Your task to perform on an android device: Is it going to rain this weekend? Image 0: 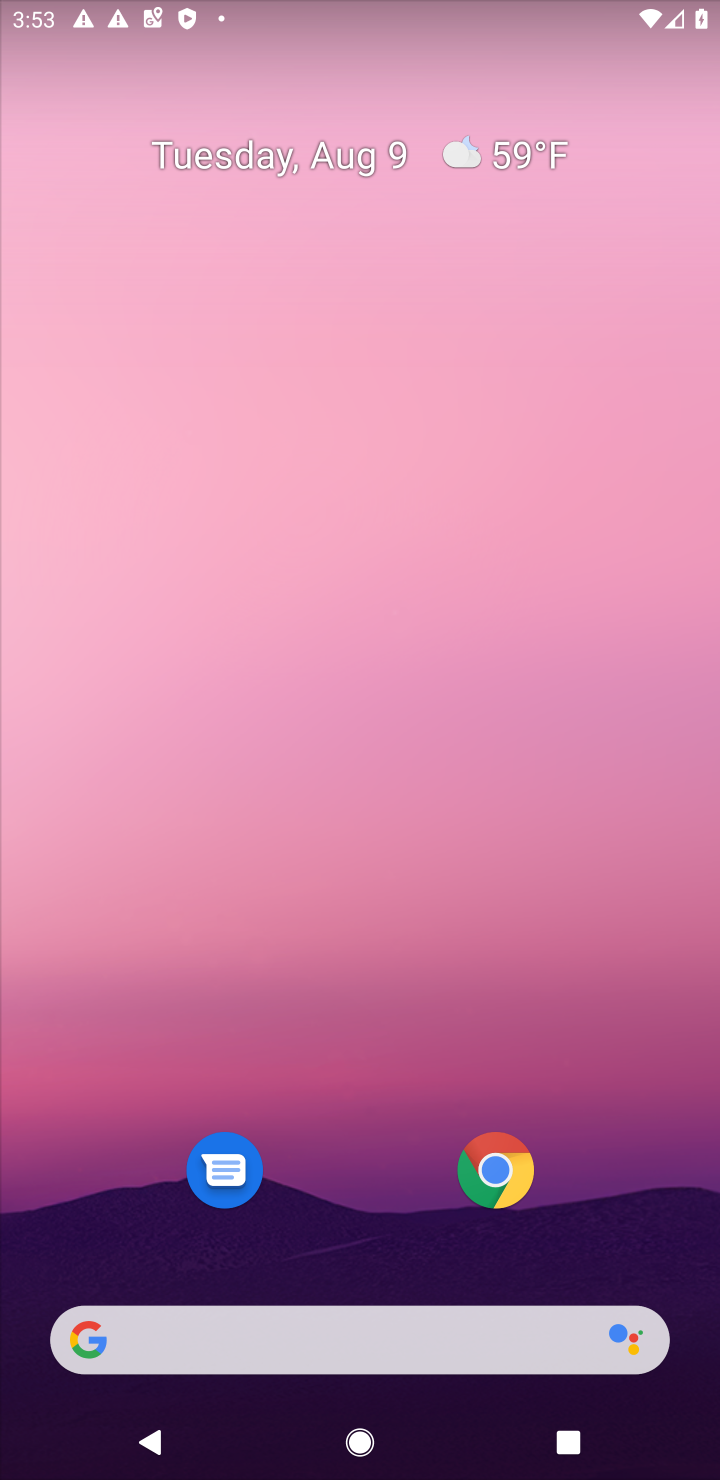
Step 0: press home button
Your task to perform on an android device: Is it going to rain this weekend? Image 1: 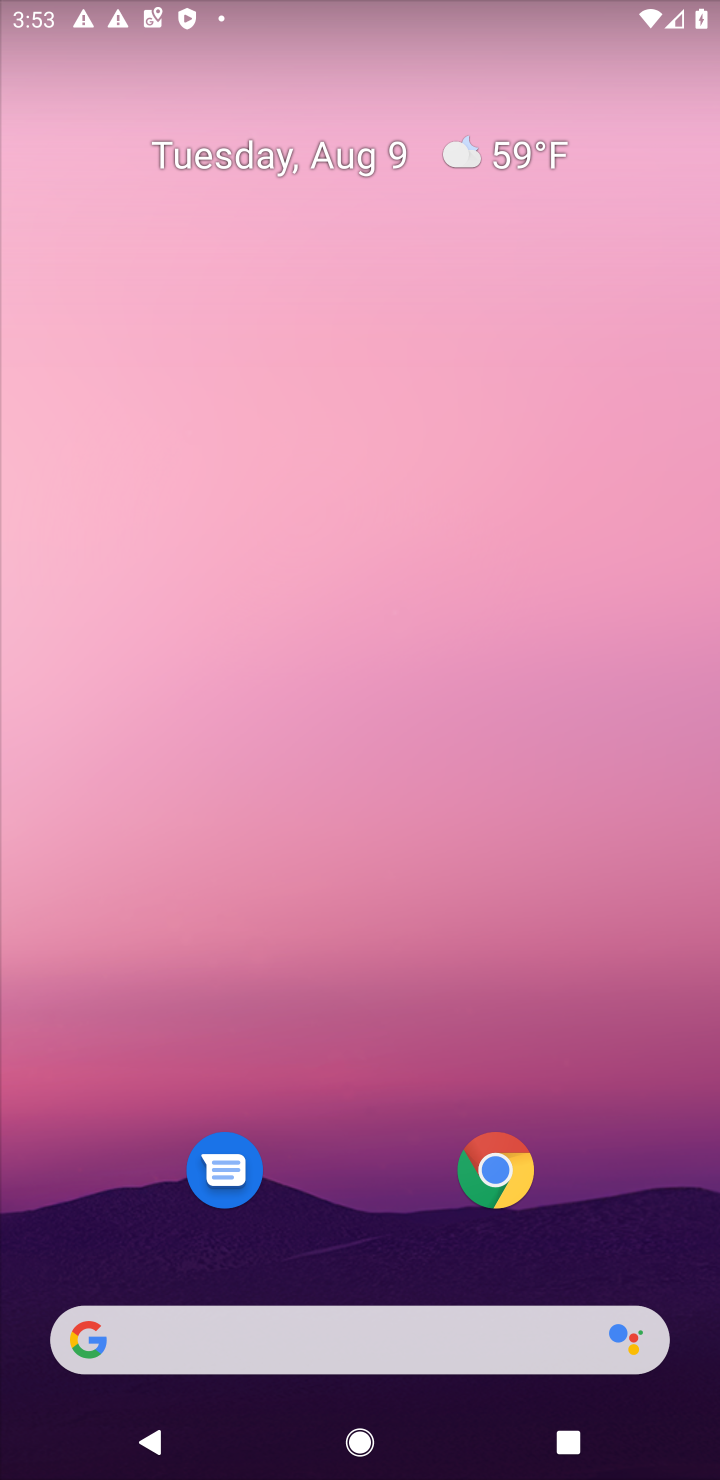
Step 1: click (366, 164)
Your task to perform on an android device: Is it going to rain this weekend? Image 2: 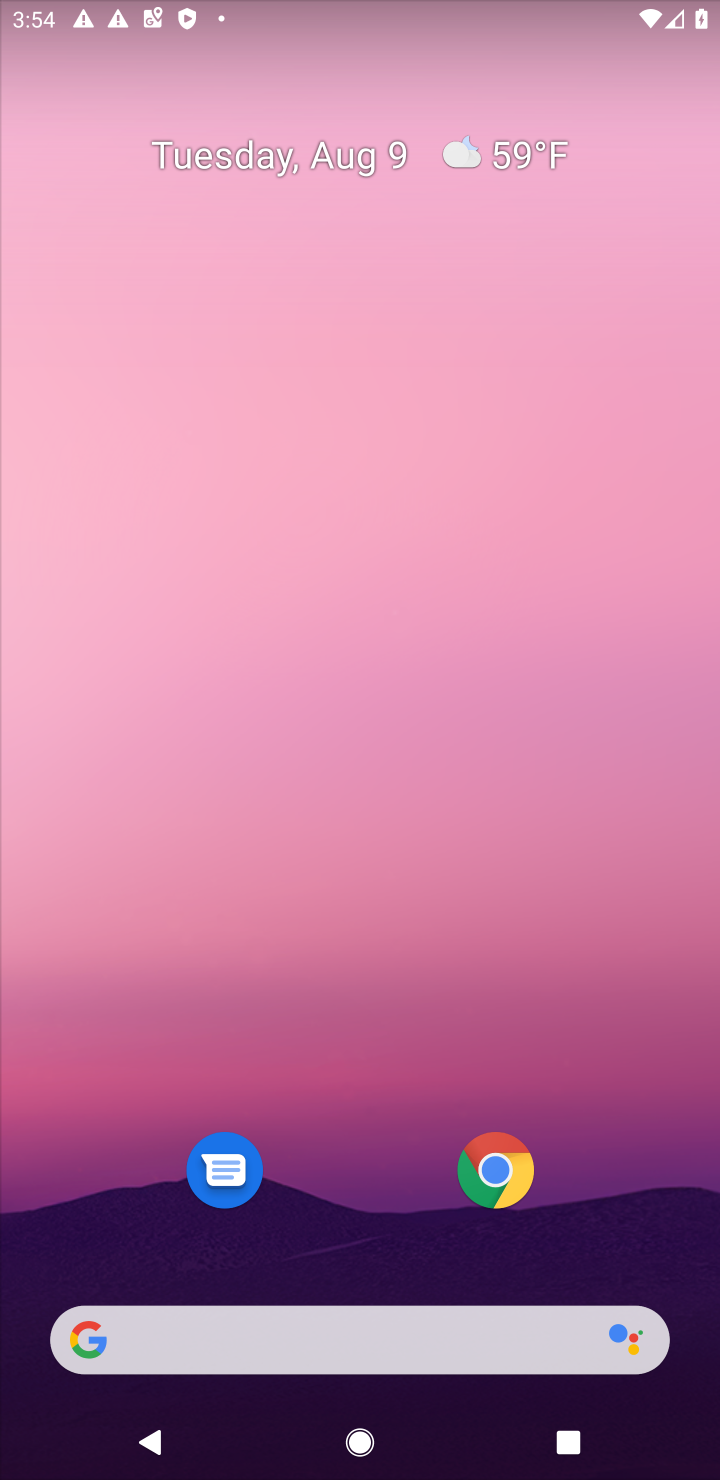
Step 2: click (70, 1342)
Your task to perform on an android device: Is it going to rain this weekend? Image 3: 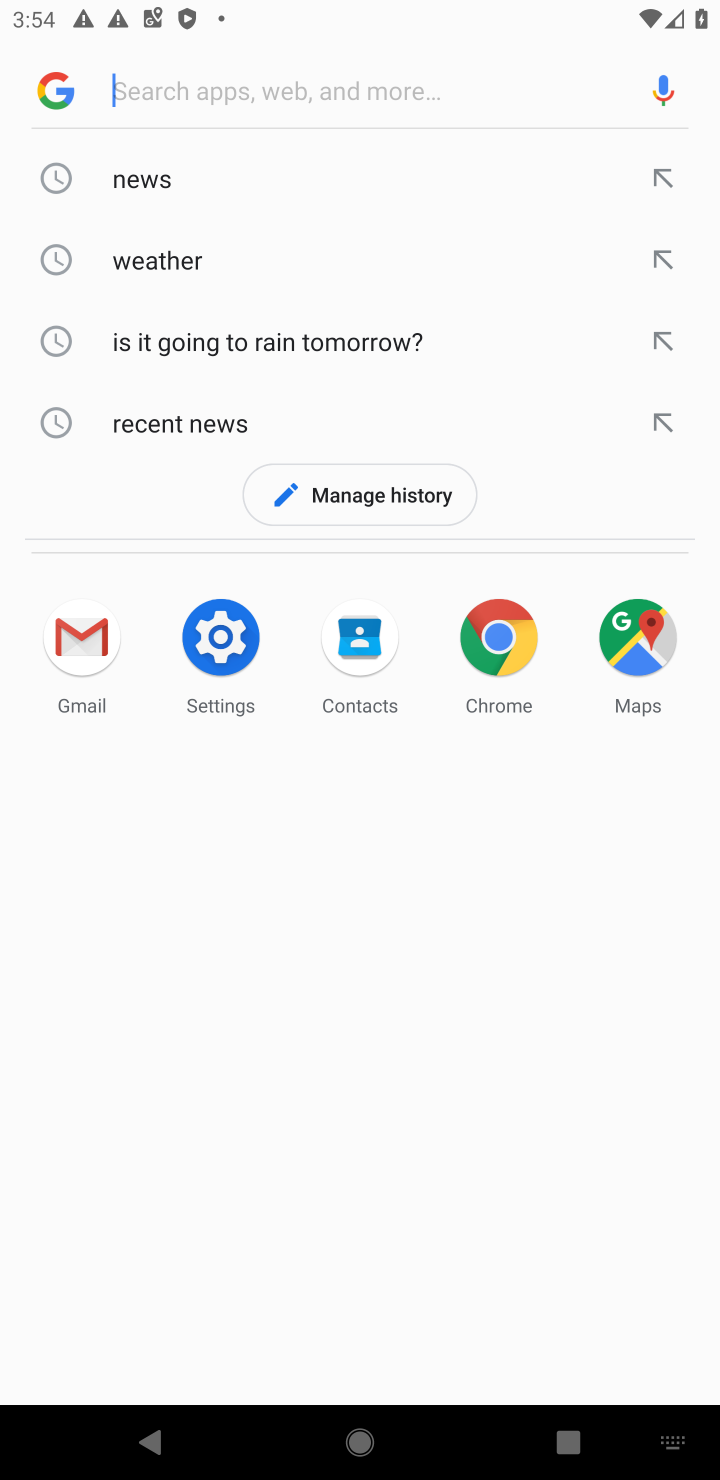
Step 3: type "Is it going to rain this weekend?"
Your task to perform on an android device: Is it going to rain this weekend? Image 4: 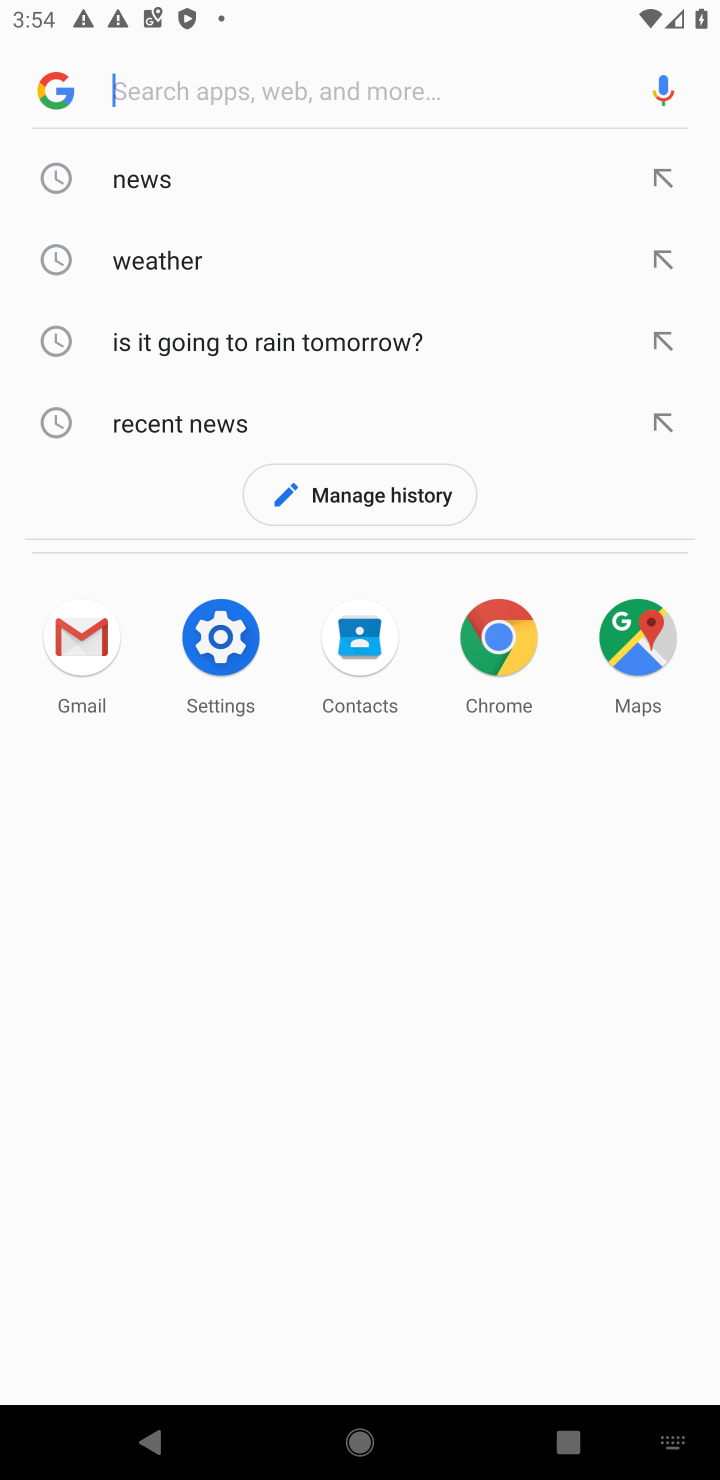
Step 4: click (243, 82)
Your task to perform on an android device: Is it going to rain this weekend? Image 5: 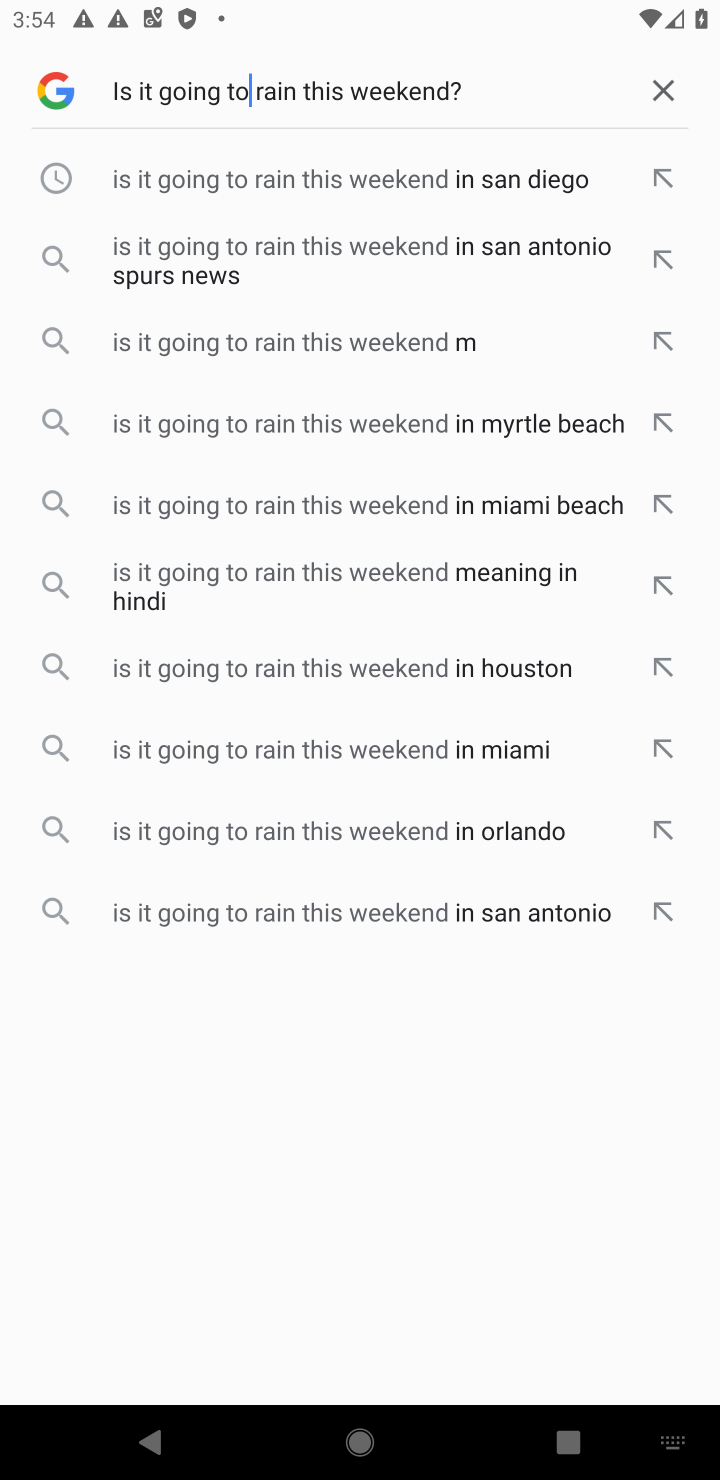
Step 5: press enter
Your task to perform on an android device: Is it going to rain this weekend? Image 6: 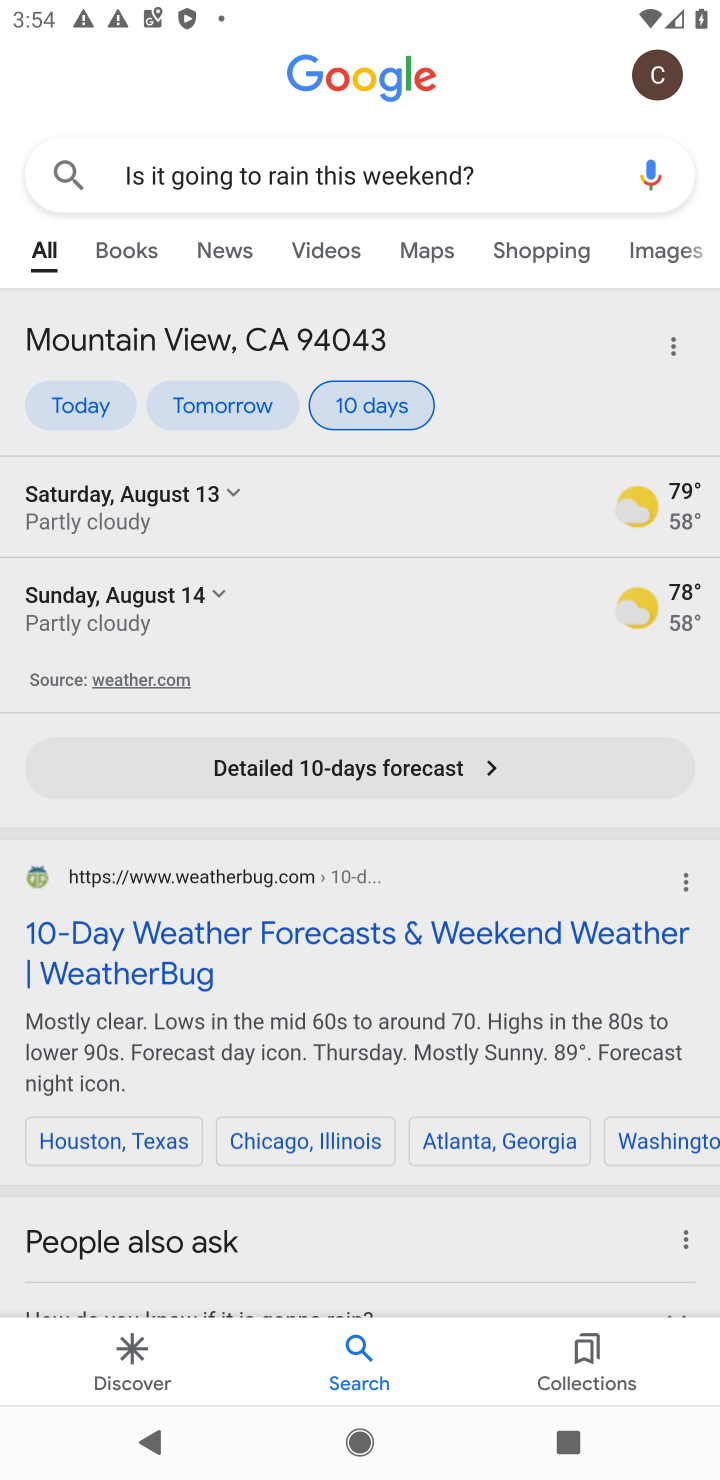
Step 6: task complete